Your task to perform on an android device: clear all cookies in the chrome app Image 0: 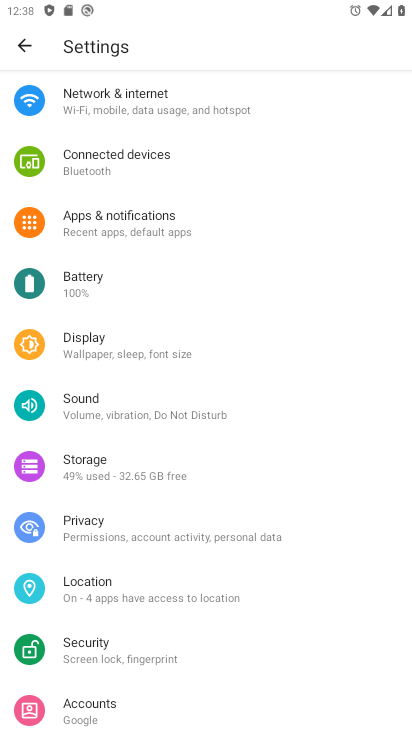
Step 0: press home button
Your task to perform on an android device: clear all cookies in the chrome app Image 1: 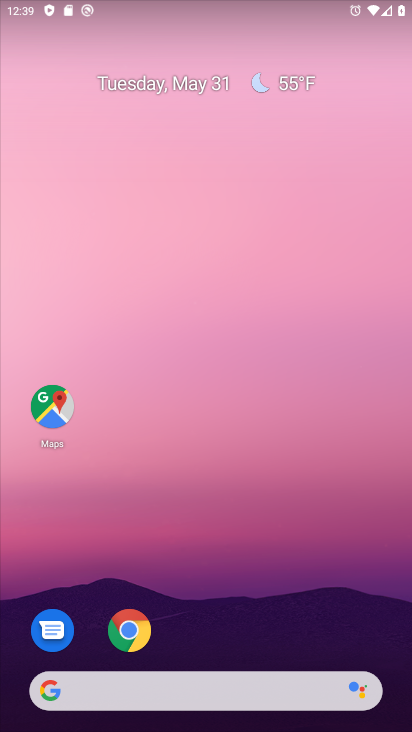
Step 1: click (151, 622)
Your task to perform on an android device: clear all cookies in the chrome app Image 2: 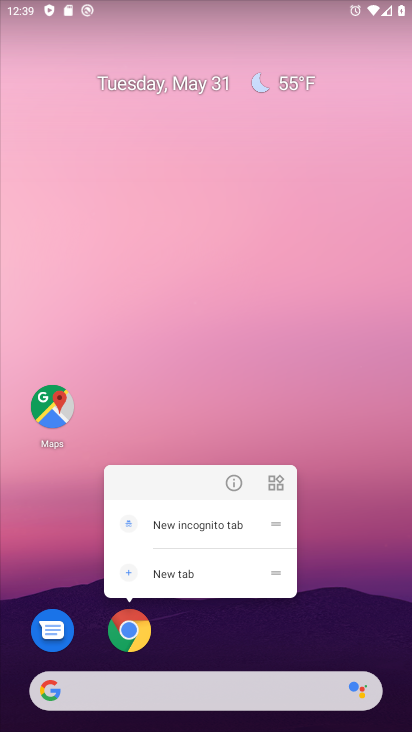
Step 2: click (131, 619)
Your task to perform on an android device: clear all cookies in the chrome app Image 3: 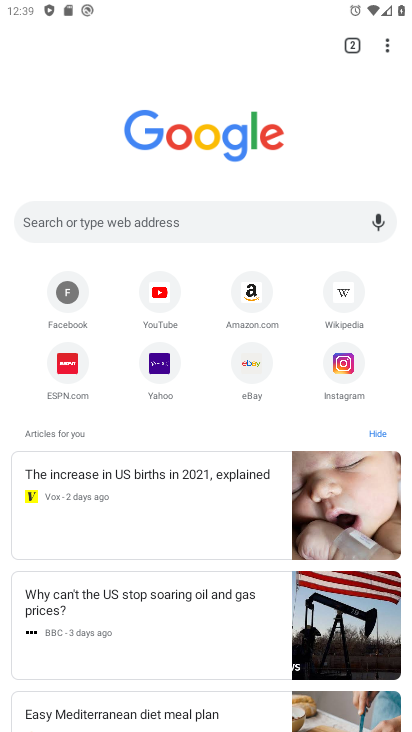
Step 3: click (384, 48)
Your task to perform on an android device: clear all cookies in the chrome app Image 4: 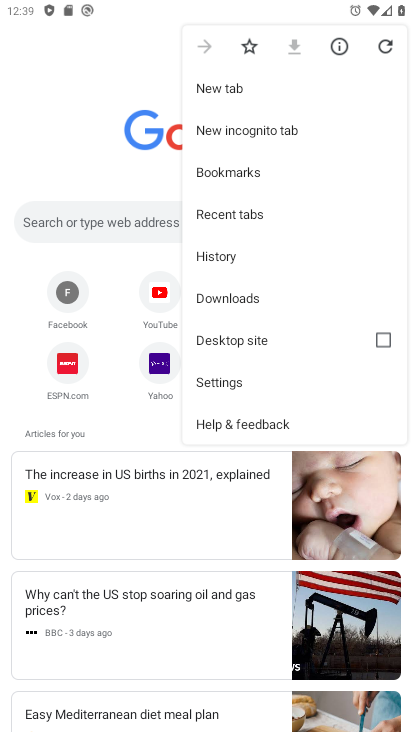
Step 4: click (221, 252)
Your task to perform on an android device: clear all cookies in the chrome app Image 5: 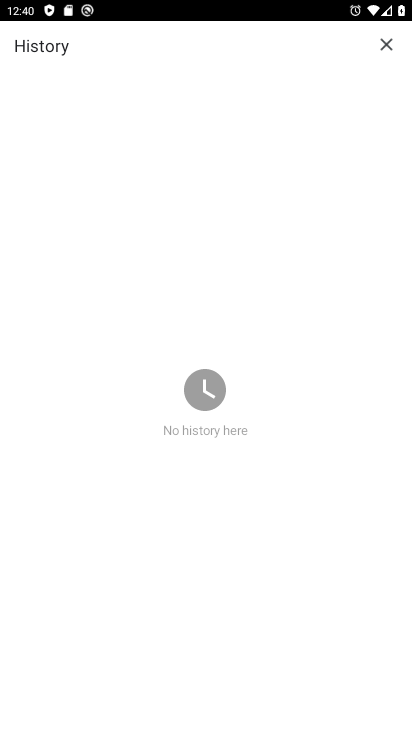
Step 5: task complete